Your task to perform on an android device: Open wifi settings Image 0: 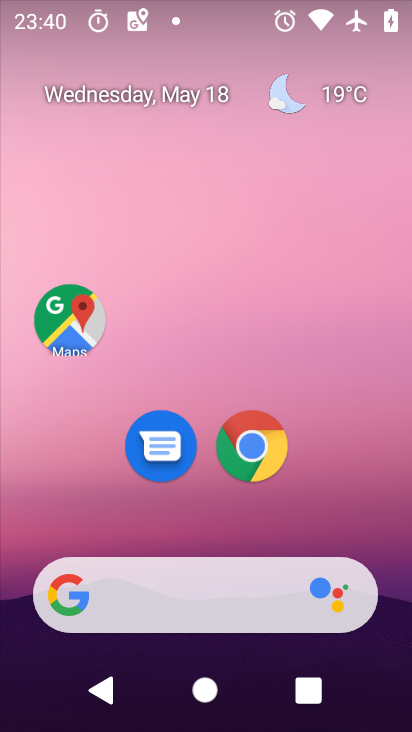
Step 0: press home button
Your task to perform on an android device: Open wifi settings Image 1: 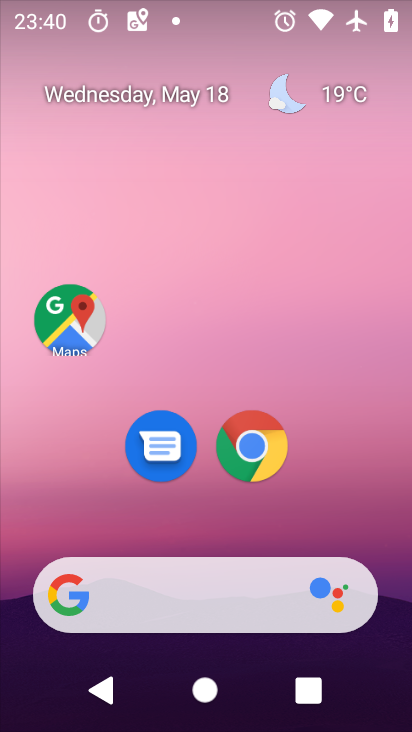
Step 1: drag from (160, 585) to (311, 110)
Your task to perform on an android device: Open wifi settings Image 2: 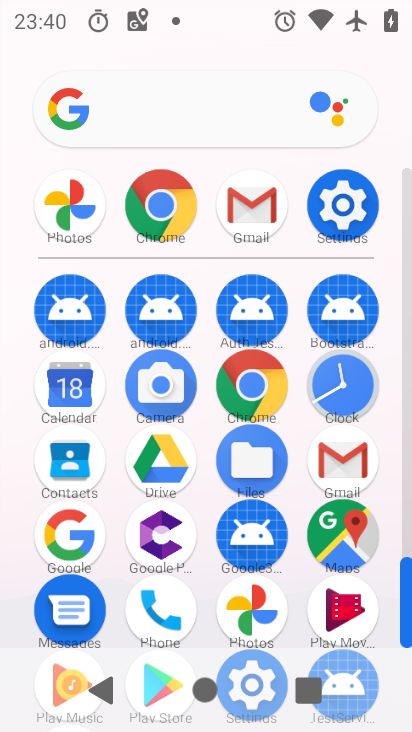
Step 2: click (352, 215)
Your task to perform on an android device: Open wifi settings Image 3: 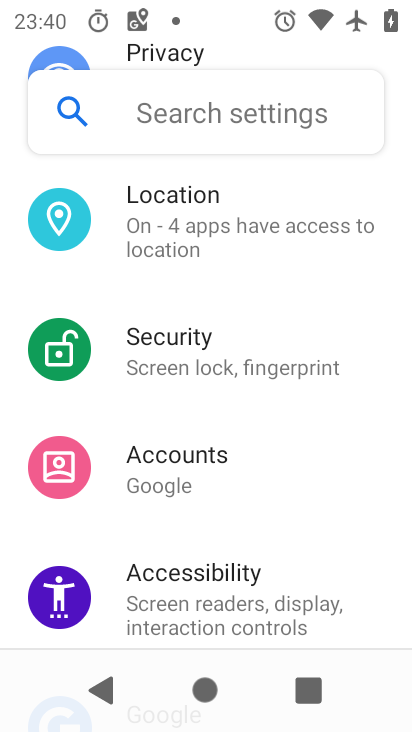
Step 3: drag from (325, 187) to (243, 539)
Your task to perform on an android device: Open wifi settings Image 4: 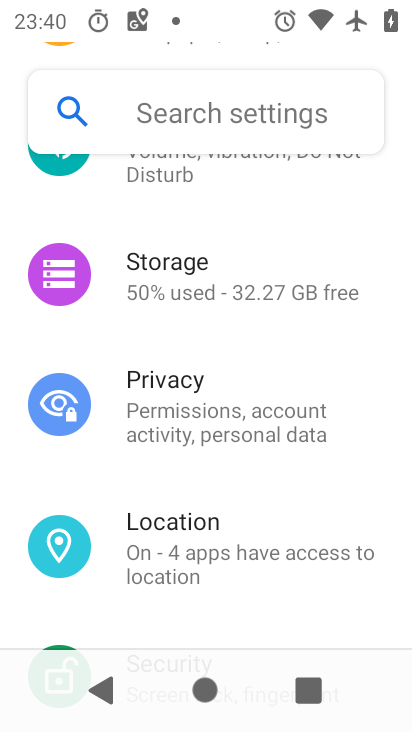
Step 4: drag from (299, 203) to (236, 515)
Your task to perform on an android device: Open wifi settings Image 5: 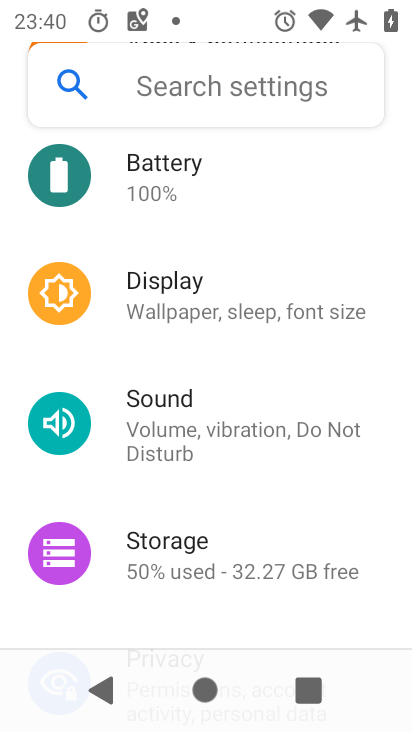
Step 5: drag from (292, 207) to (206, 546)
Your task to perform on an android device: Open wifi settings Image 6: 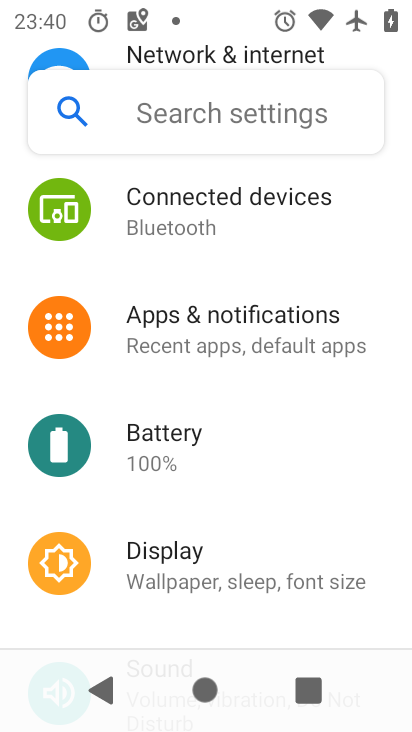
Step 6: drag from (309, 237) to (224, 564)
Your task to perform on an android device: Open wifi settings Image 7: 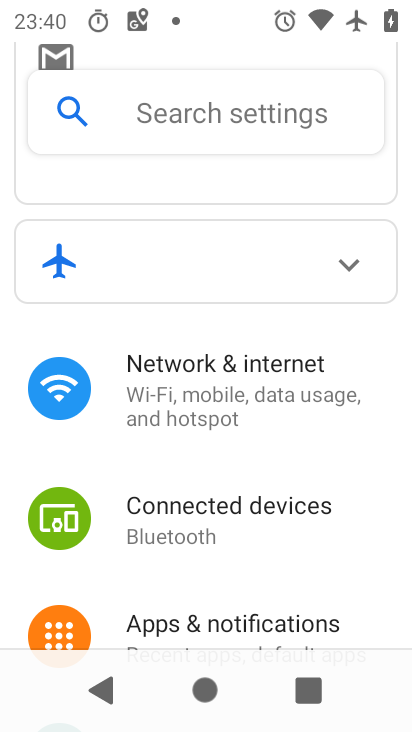
Step 7: click (233, 394)
Your task to perform on an android device: Open wifi settings Image 8: 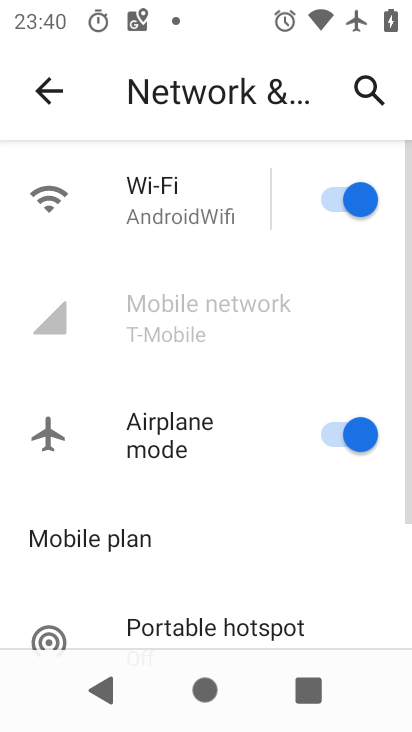
Step 8: click (169, 216)
Your task to perform on an android device: Open wifi settings Image 9: 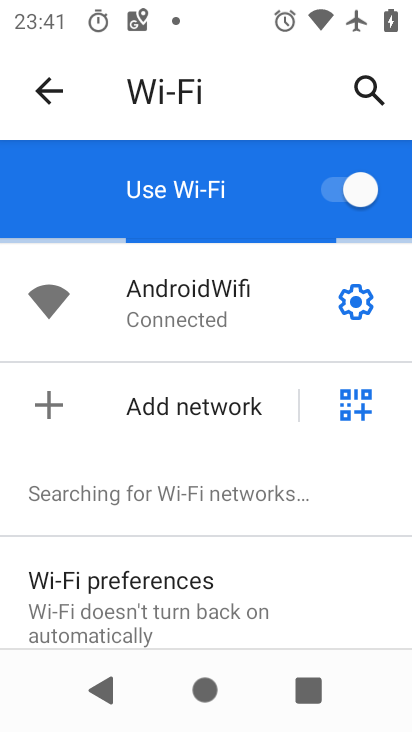
Step 9: task complete